Your task to perform on an android device: star an email in the gmail app Image 0: 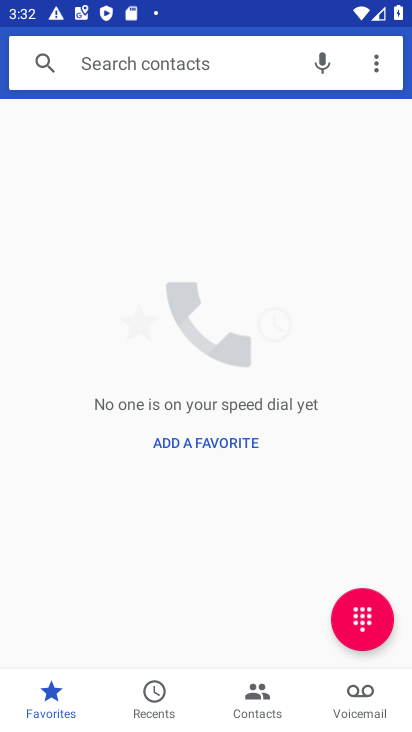
Step 0: press home button
Your task to perform on an android device: star an email in the gmail app Image 1: 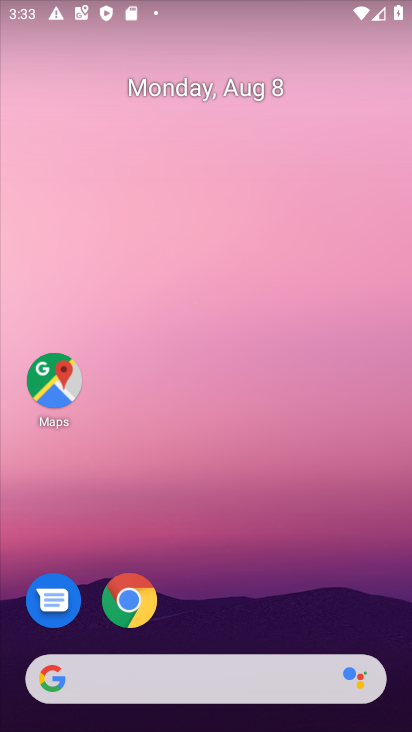
Step 1: drag from (377, 400) to (353, 121)
Your task to perform on an android device: star an email in the gmail app Image 2: 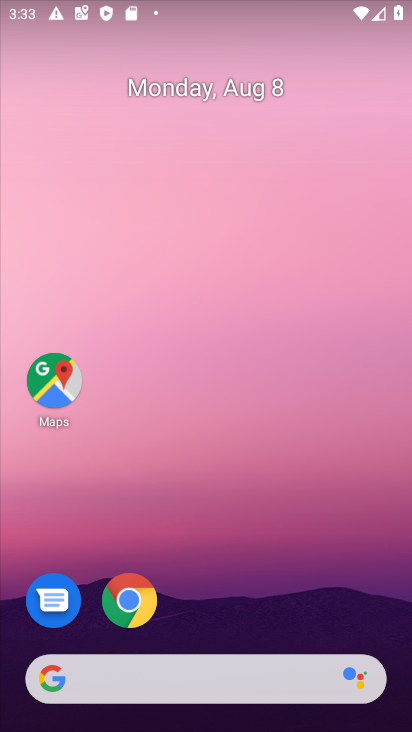
Step 2: drag from (388, 707) to (340, 67)
Your task to perform on an android device: star an email in the gmail app Image 3: 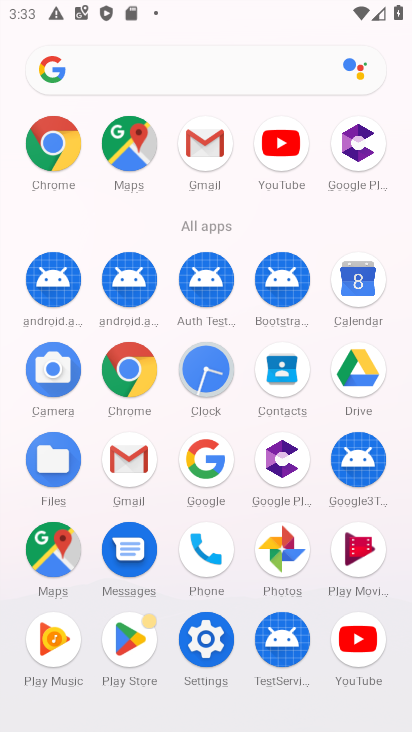
Step 3: click (137, 461)
Your task to perform on an android device: star an email in the gmail app Image 4: 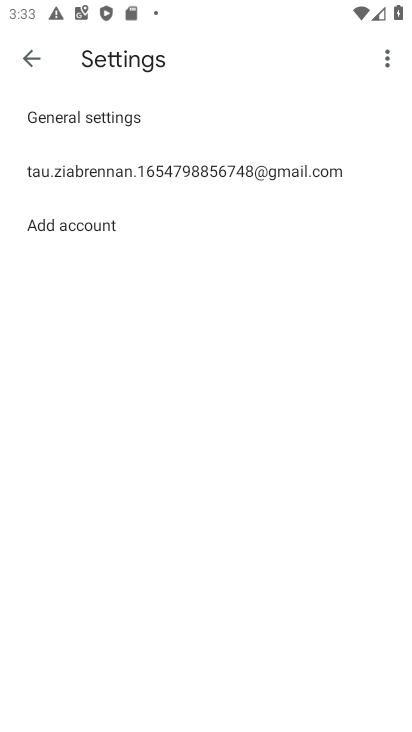
Step 4: click (27, 61)
Your task to perform on an android device: star an email in the gmail app Image 5: 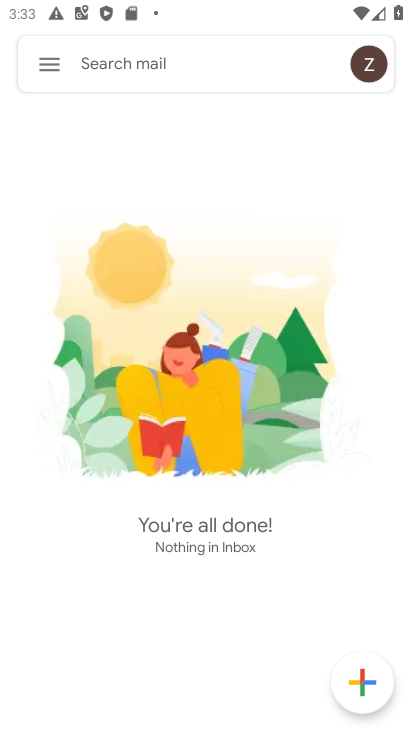
Step 5: click (52, 66)
Your task to perform on an android device: star an email in the gmail app Image 6: 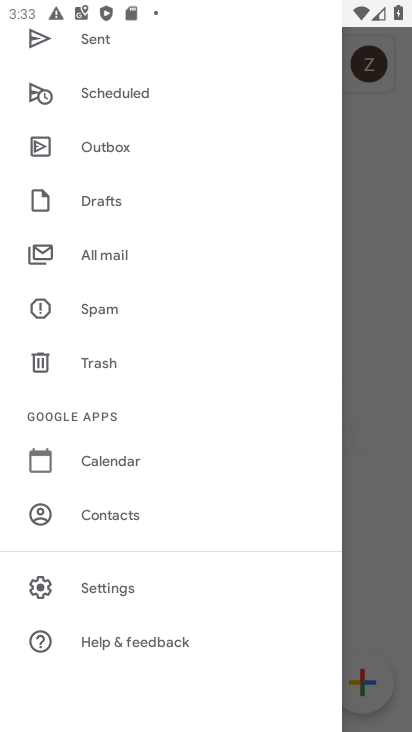
Step 6: click (101, 587)
Your task to perform on an android device: star an email in the gmail app Image 7: 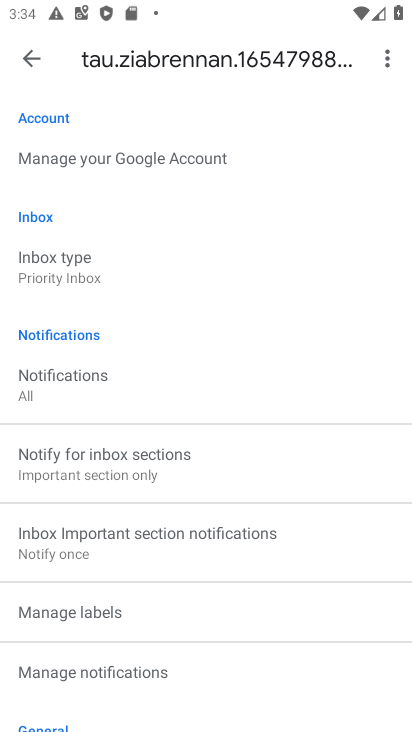
Step 7: click (30, 57)
Your task to perform on an android device: star an email in the gmail app Image 8: 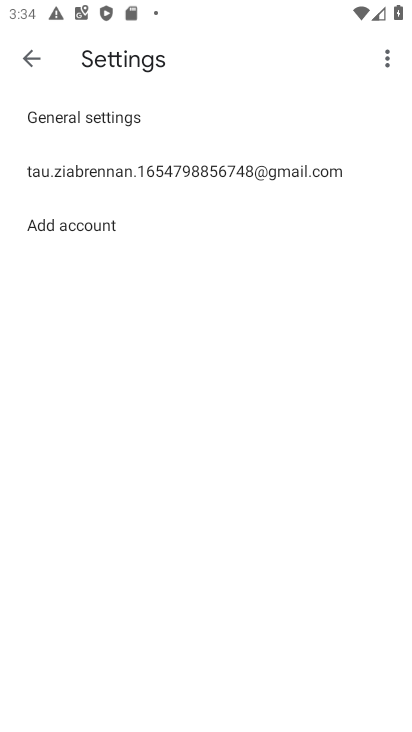
Step 8: click (33, 58)
Your task to perform on an android device: star an email in the gmail app Image 9: 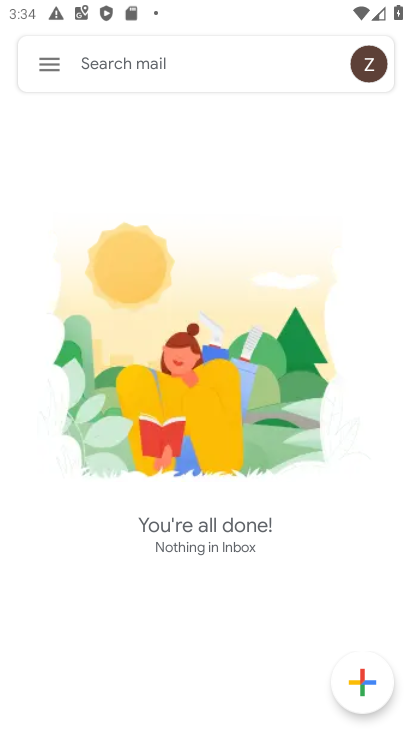
Step 9: click (47, 66)
Your task to perform on an android device: star an email in the gmail app Image 10: 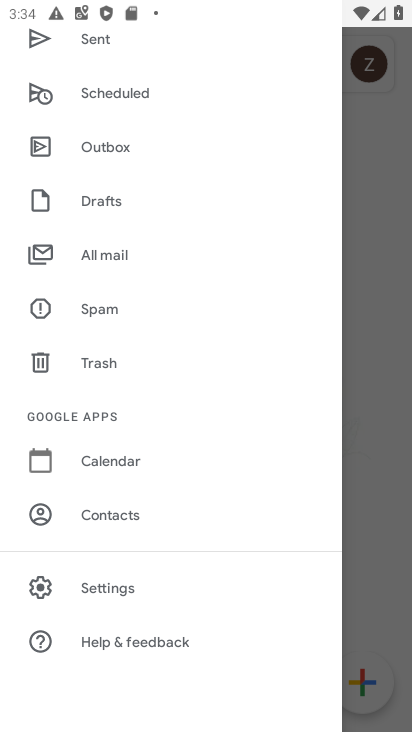
Step 10: task complete